Your task to perform on an android device: move a message to another label in the gmail app Image 0: 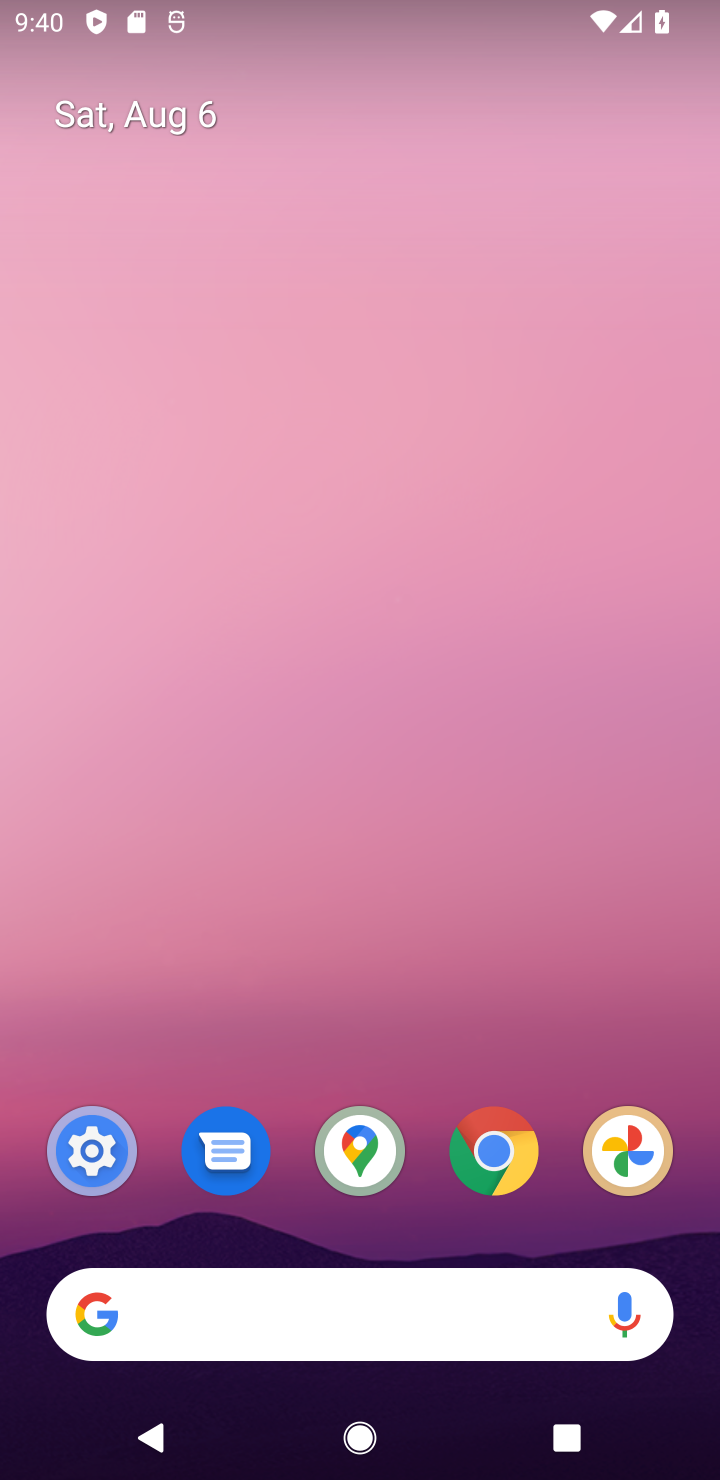
Step 0: drag from (391, 979) to (584, 84)
Your task to perform on an android device: move a message to another label in the gmail app Image 1: 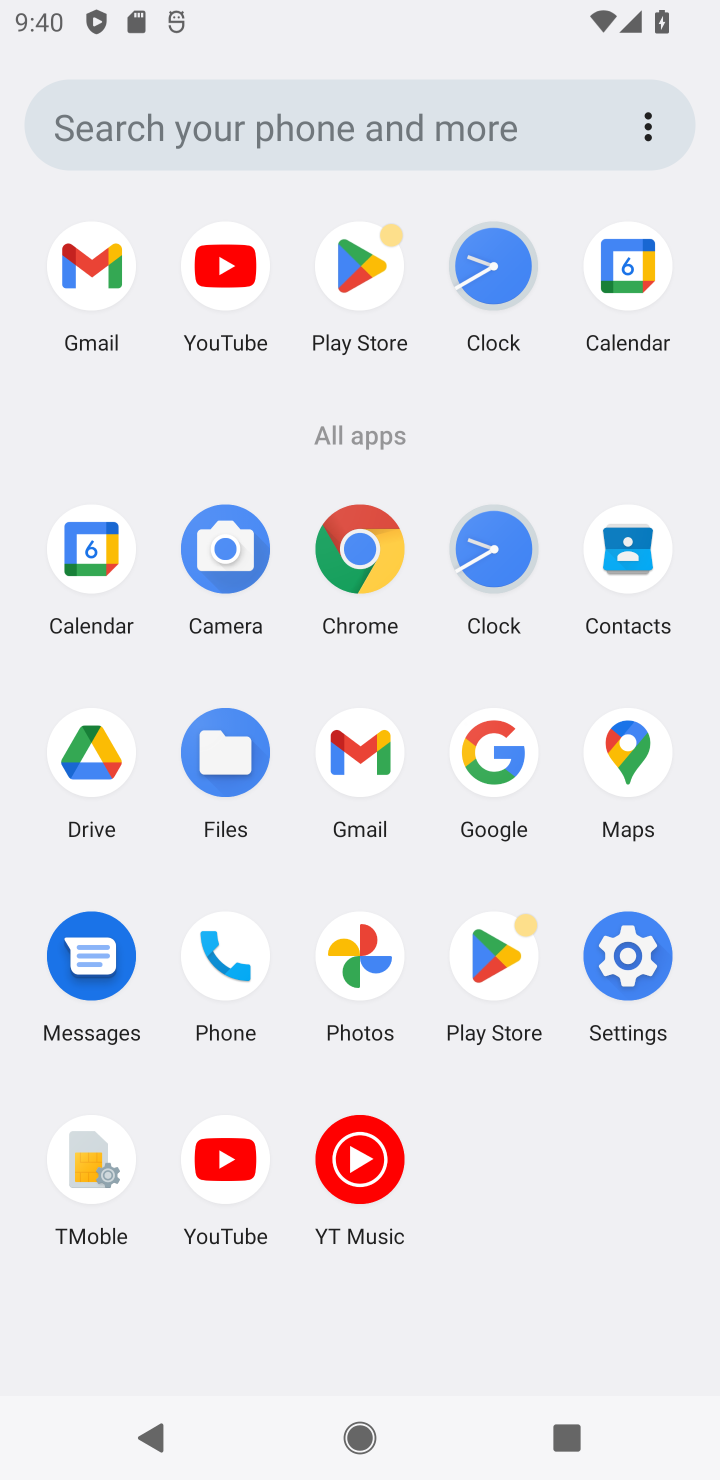
Step 1: click (362, 756)
Your task to perform on an android device: move a message to another label in the gmail app Image 2: 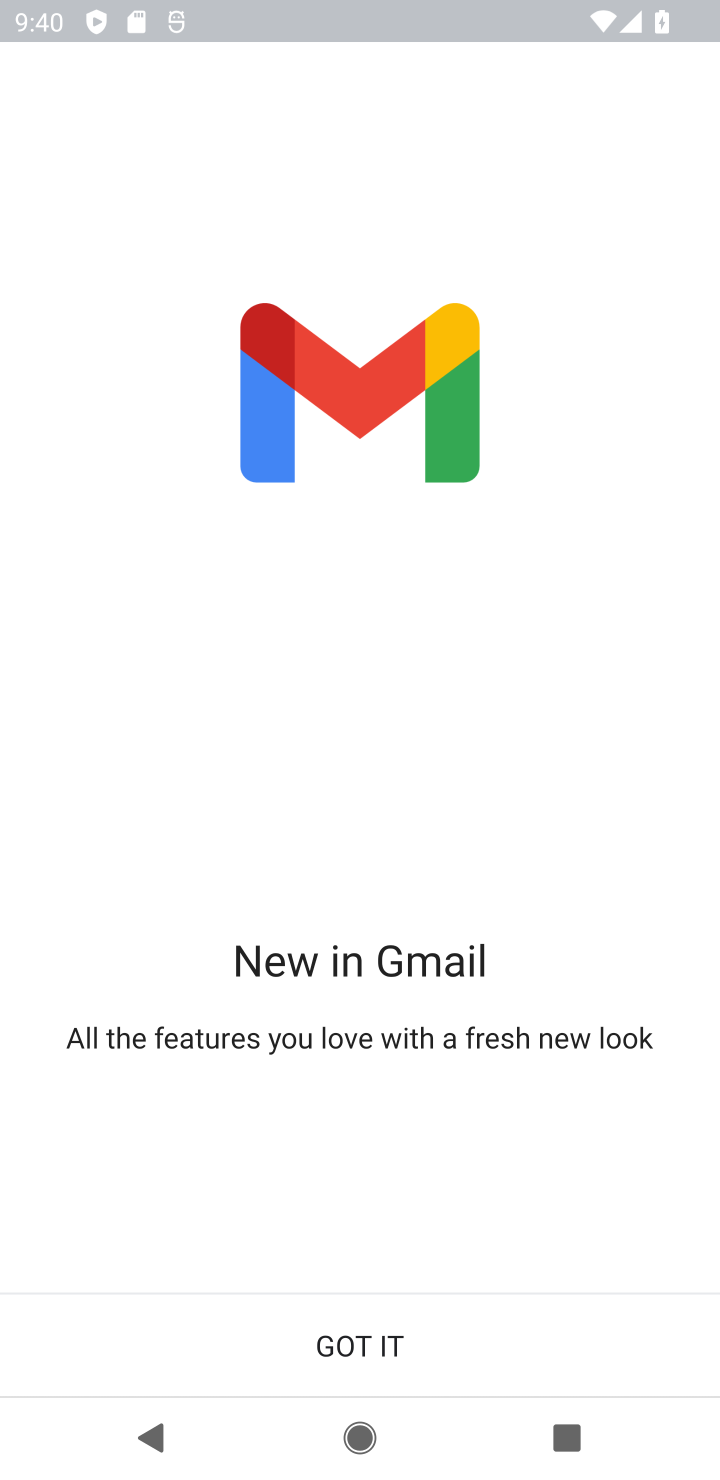
Step 2: click (336, 1335)
Your task to perform on an android device: move a message to another label in the gmail app Image 3: 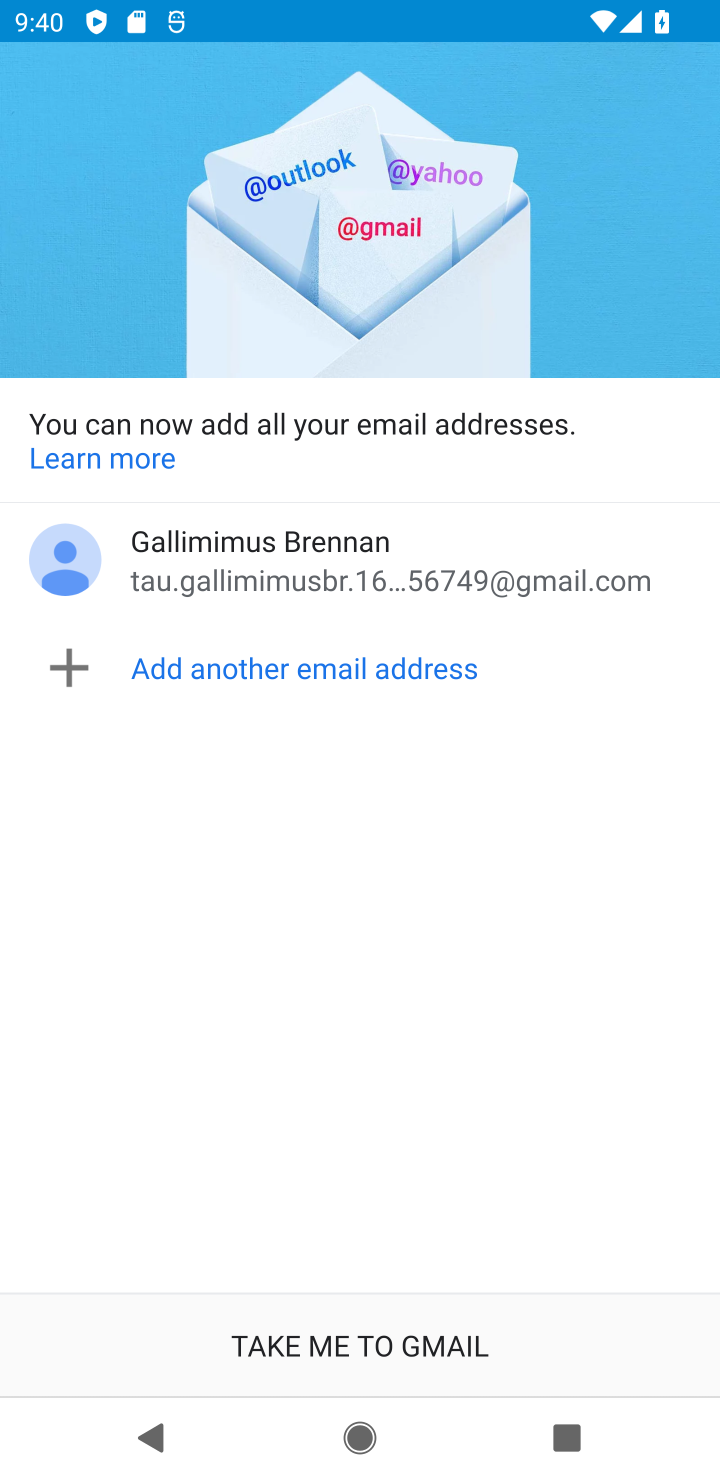
Step 3: click (369, 1345)
Your task to perform on an android device: move a message to another label in the gmail app Image 4: 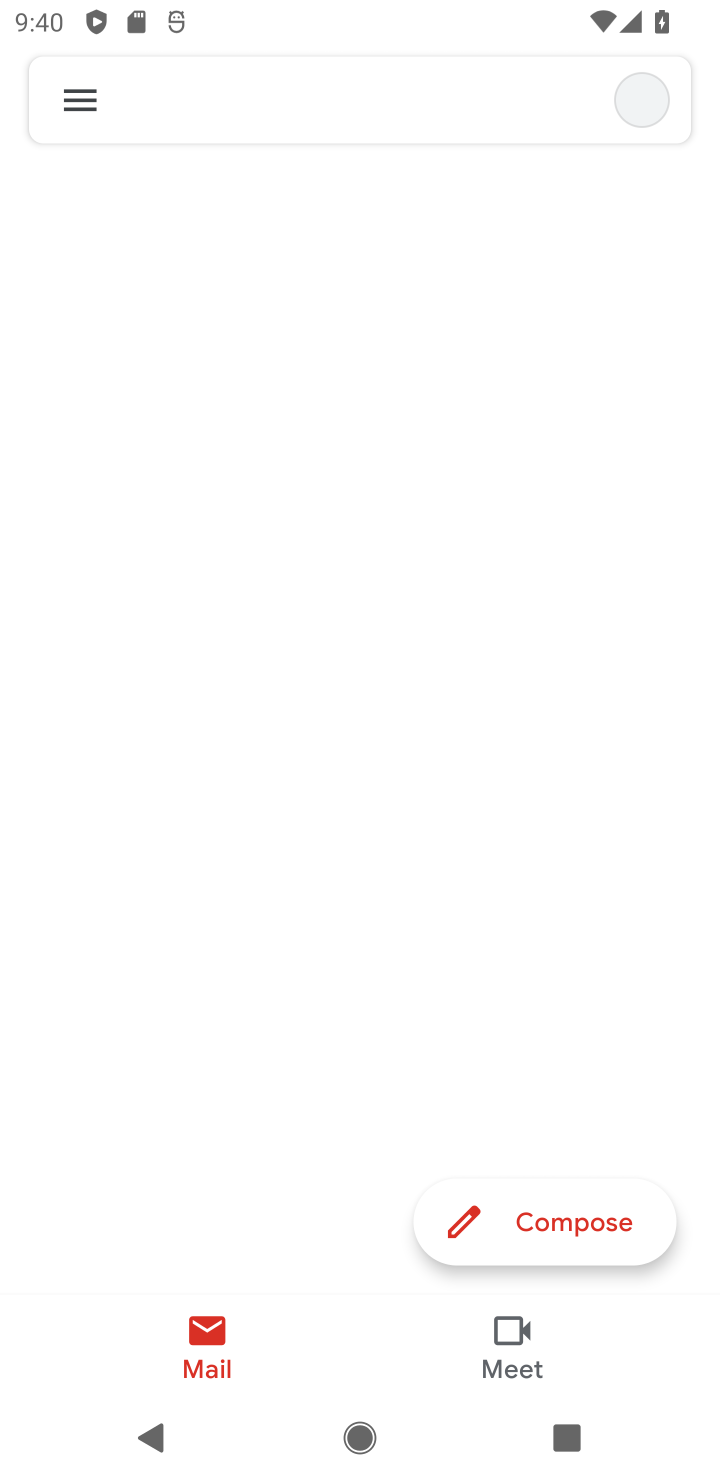
Step 4: task complete